Your task to perform on an android device: Open Yahoo.com Image 0: 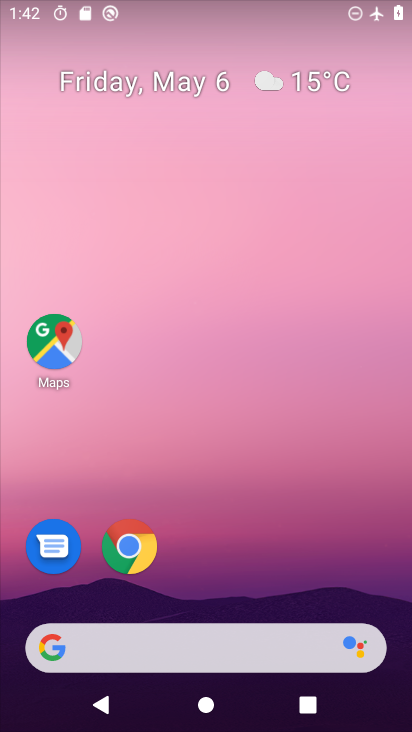
Step 0: click (139, 546)
Your task to perform on an android device: Open Yahoo.com Image 1: 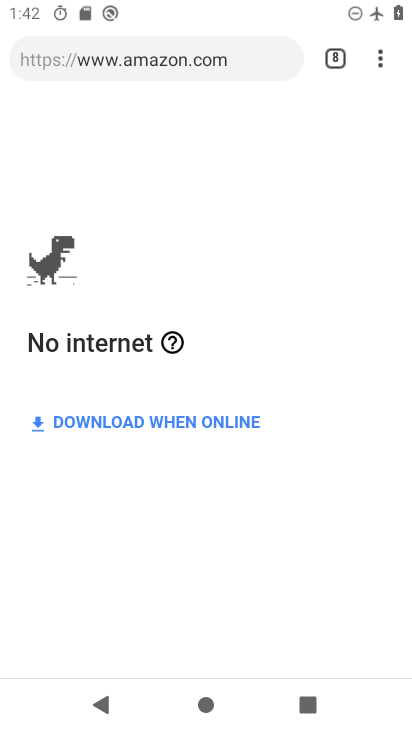
Step 1: click (332, 57)
Your task to perform on an android device: Open Yahoo.com Image 2: 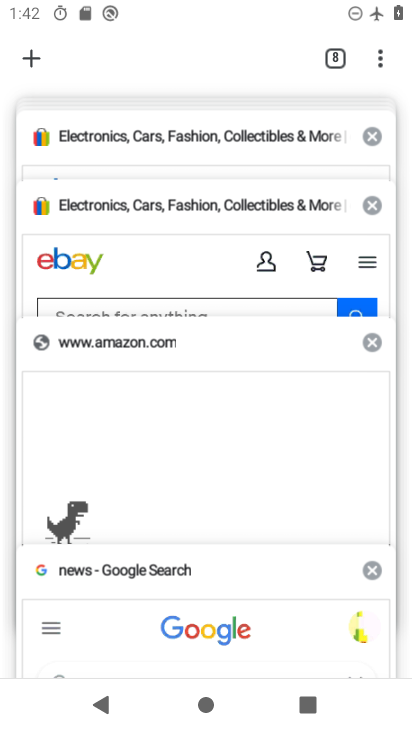
Step 2: drag from (218, 270) to (149, 624)
Your task to perform on an android device: Open Yahoo.com Image 3: 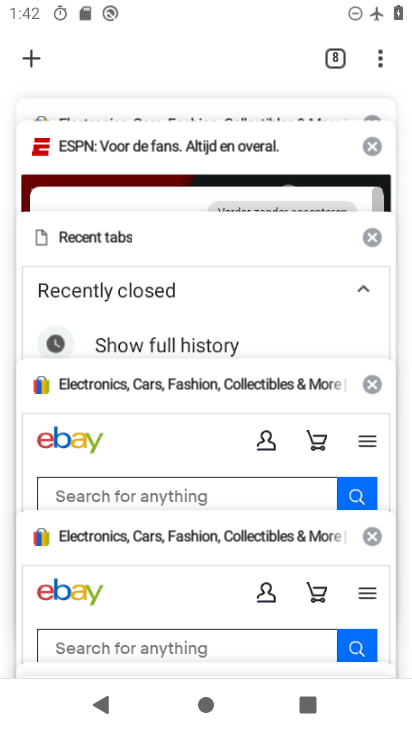
Step 3: drag from (257, 203) to (252, 542)
Your task to perform on an android device: Open Yahoo.com Image 4: 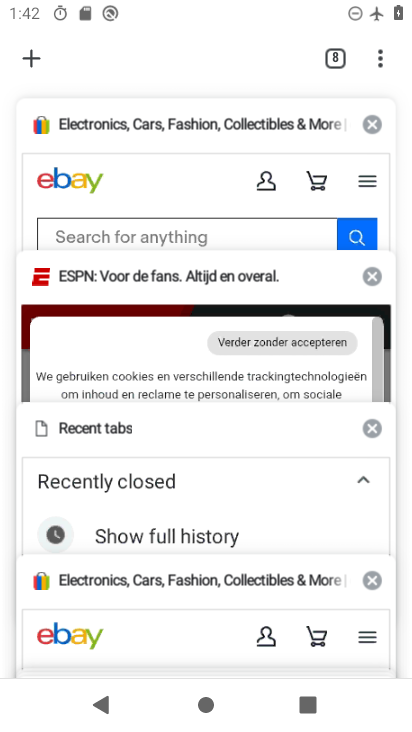
Step 4: click (28, 59)
Your task to perform on an android device: Open Yahoo.com Image 5: 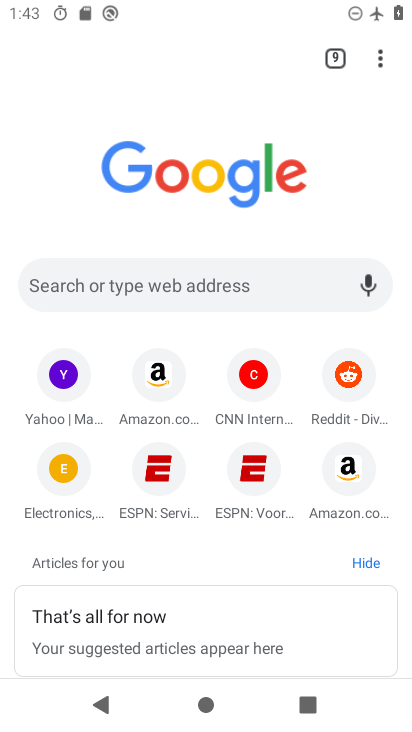
Step 5: click (195, 280)
Your task to perform on an android device: Open Yahoo.com Image 6: 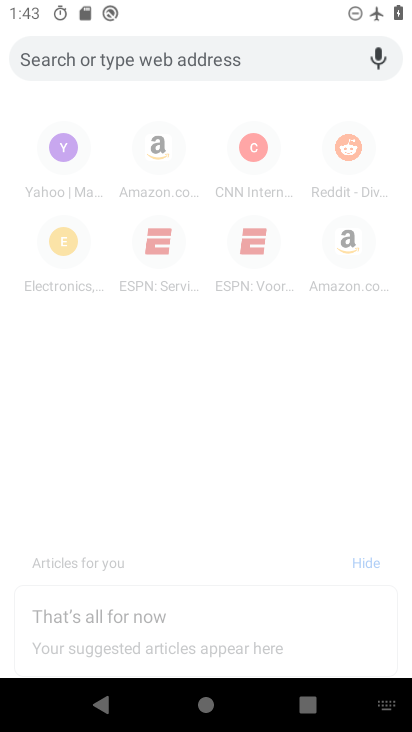
Step 6: type "yahoo.com"
Your task to perform on an android device: Open Yahoo.com Image 7: 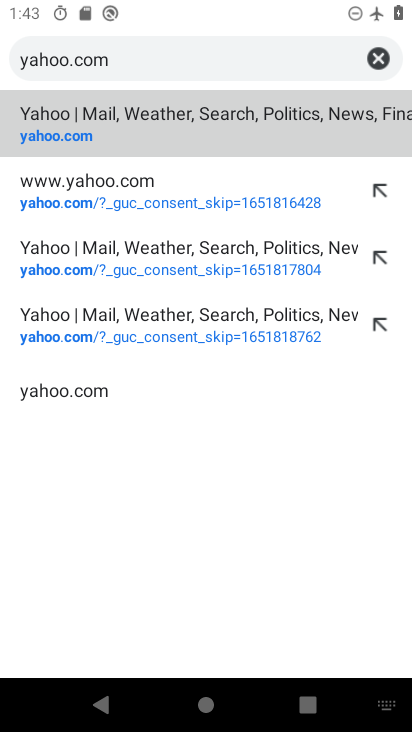
Step 7: click (206, 133)
Your task to perform on an android device: Open Yahoo.com Image 8: 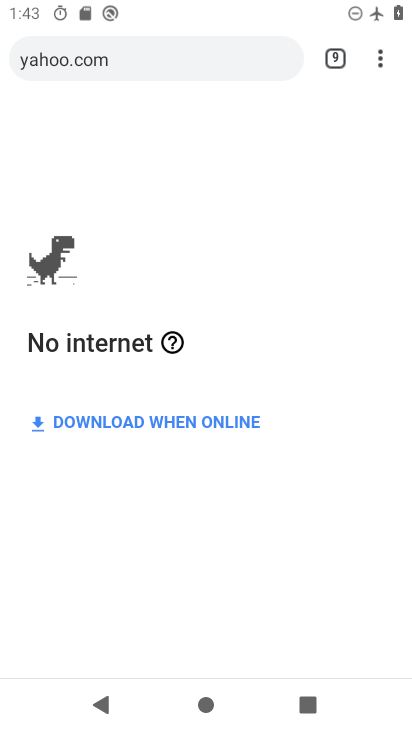
Step 8: task complete